Your task to perform on an android device: Open eBay Image 0: 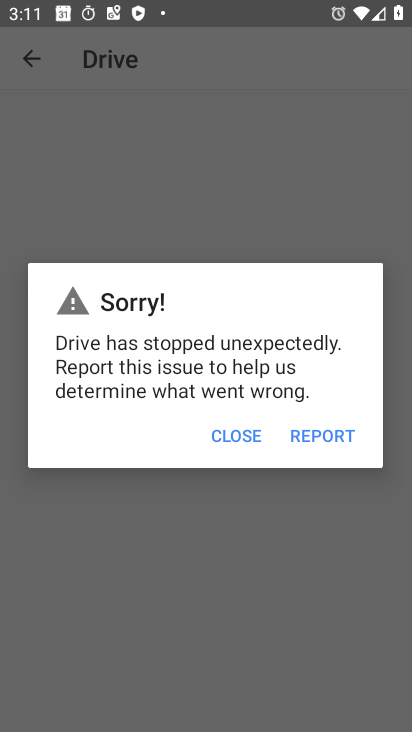
Step 0: press back button
Your task to perform on an android device: Open eBay Image 1: 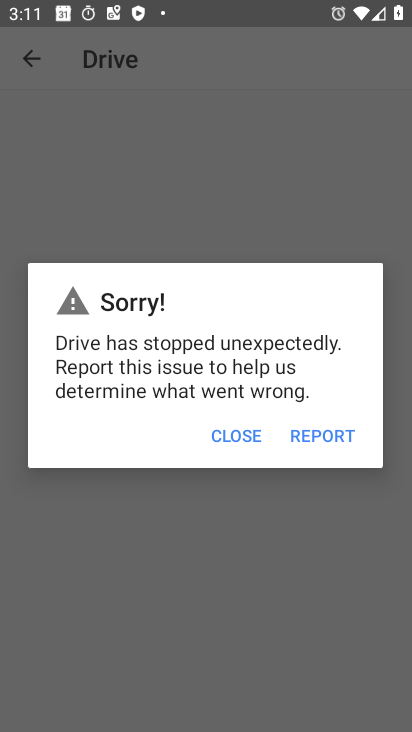
Step 1: press home button
Your task to perform on an android device: Open eBay Image 2: 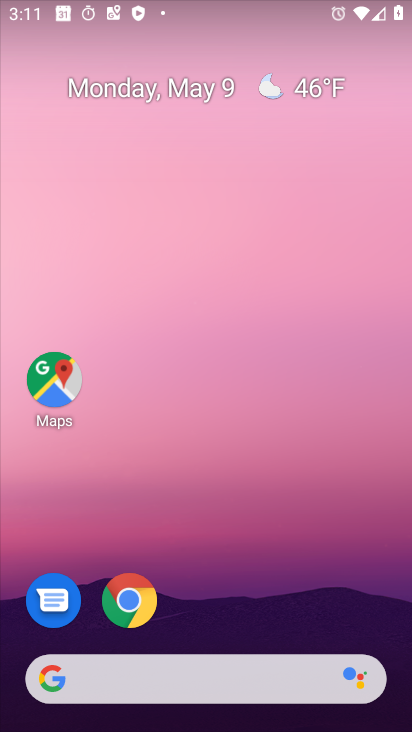
Step 2: click (141, 605)
Your task to perform on an android device: Open eBay Image 3: 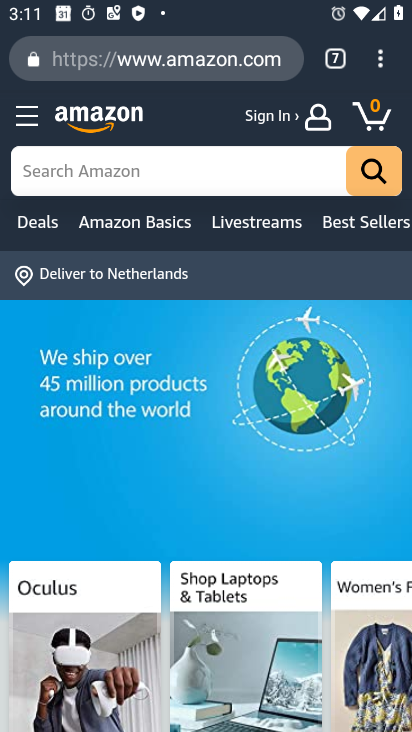
Step 3: click (332, 51)
Your task to perform on an android device: Open eBay Image 4: 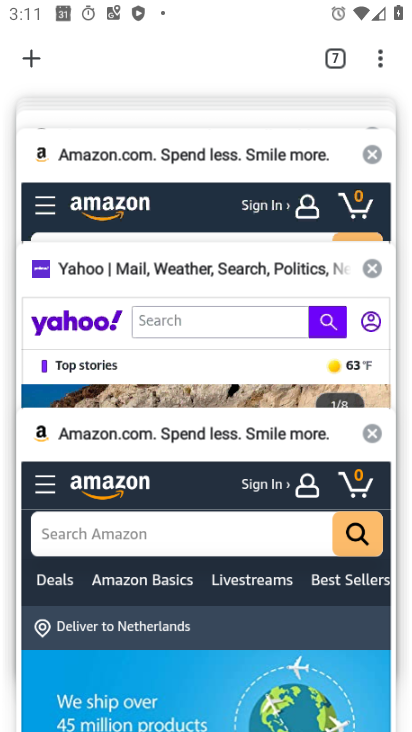
Step 4: click (34, 51)
Your task to perform on an android device: Open eBay Image 5: 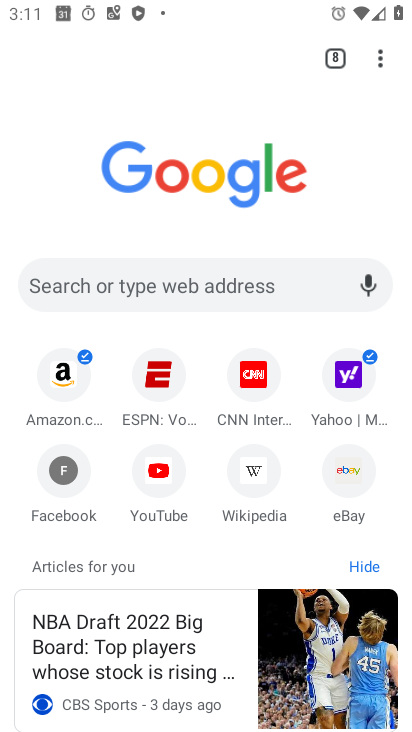
Step 5: click (130, 290)
Your task to perform on an android device: Open eBay Image 6: 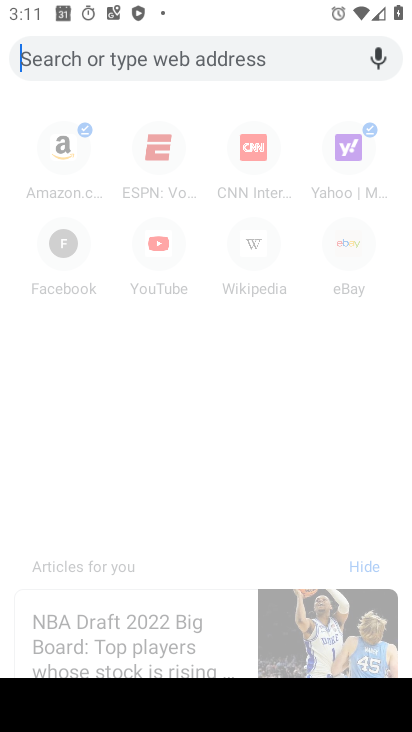
Step 6: type "ebay"
Your task to perform on an android device: Open eBay Image 7: 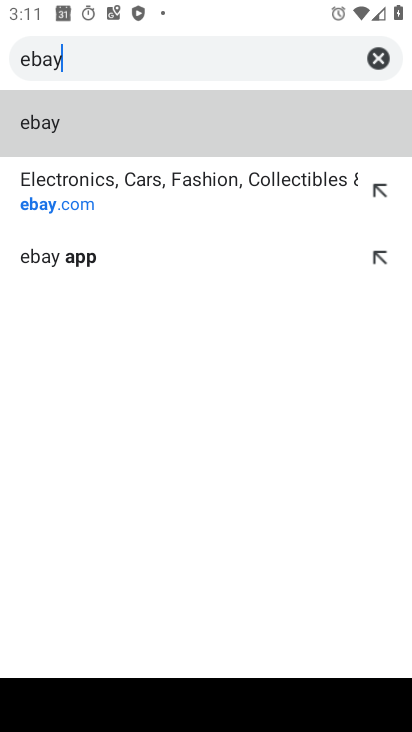
Step 7: click (101, 120)
Your task to perform on an android device: Open eBay Image 8: 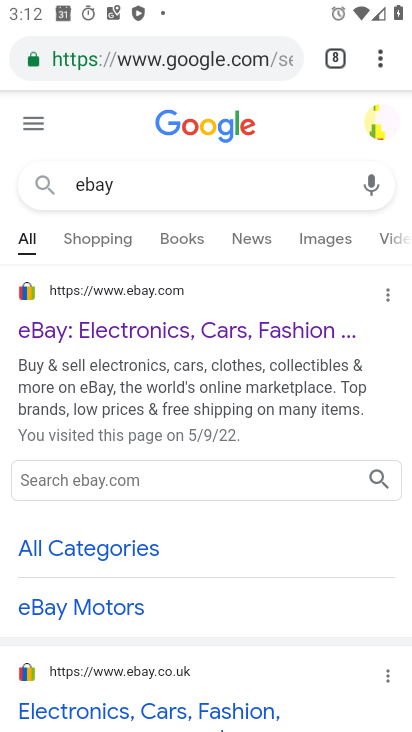
Step 8: click (58, 349)
Your task to perform on an android device: Open eBay Image 9: 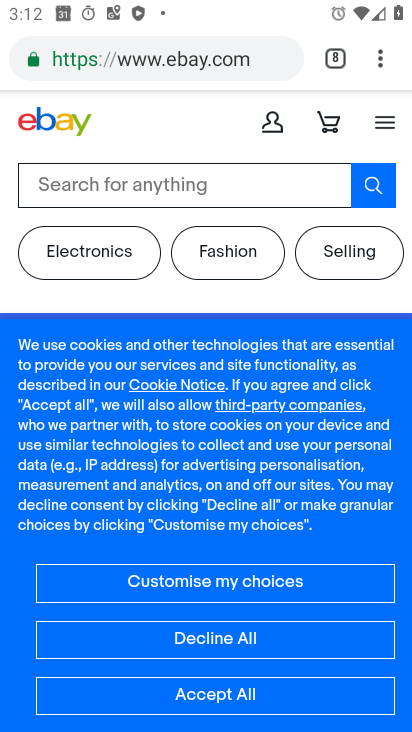
Step 9: task complete